Your task to perform on an android device: open app "Fetch Rewards" (install if not already installed) Image 0: 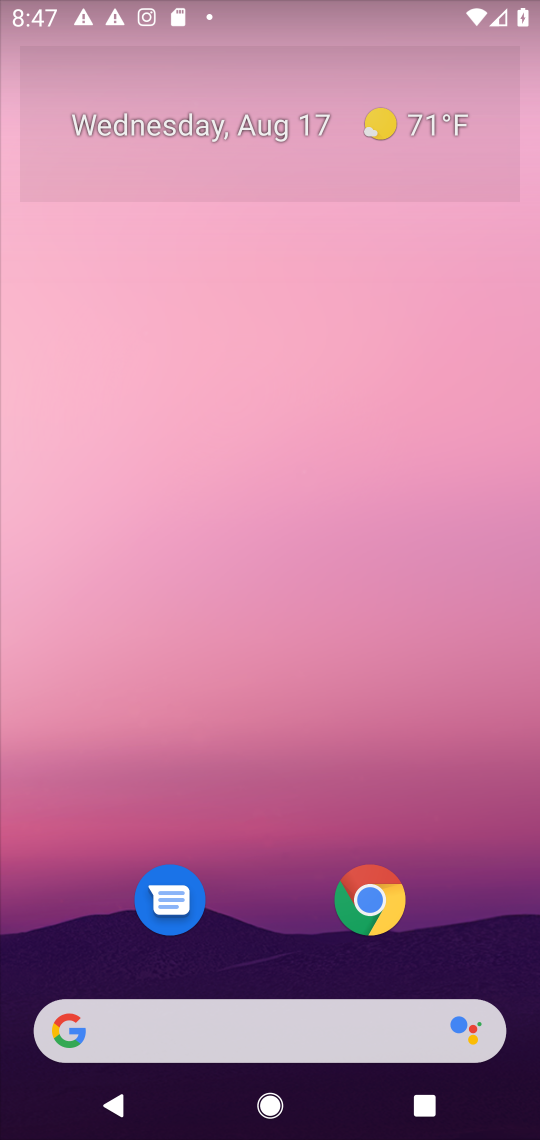
Step 0: drag from (259, 754) to (259, 46)
Your task to perform on an android device: open app "Fetch Rewards" (install if not already installed) Image 1: 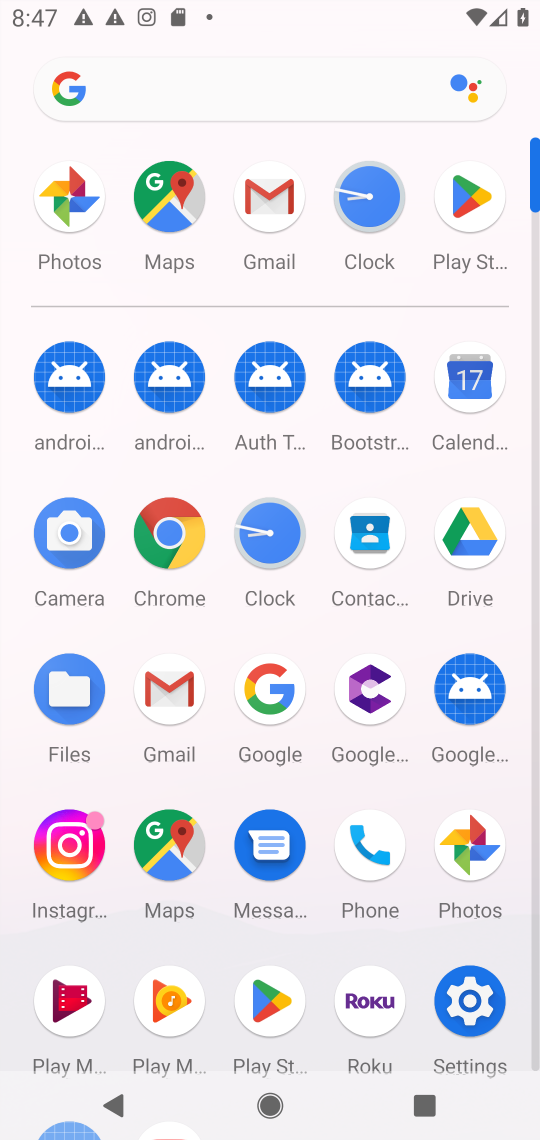
Step 1: click (473, 195)
Your task to perform on an android device: open app "Fetch Rewards" (install if not already installed) Image 2: 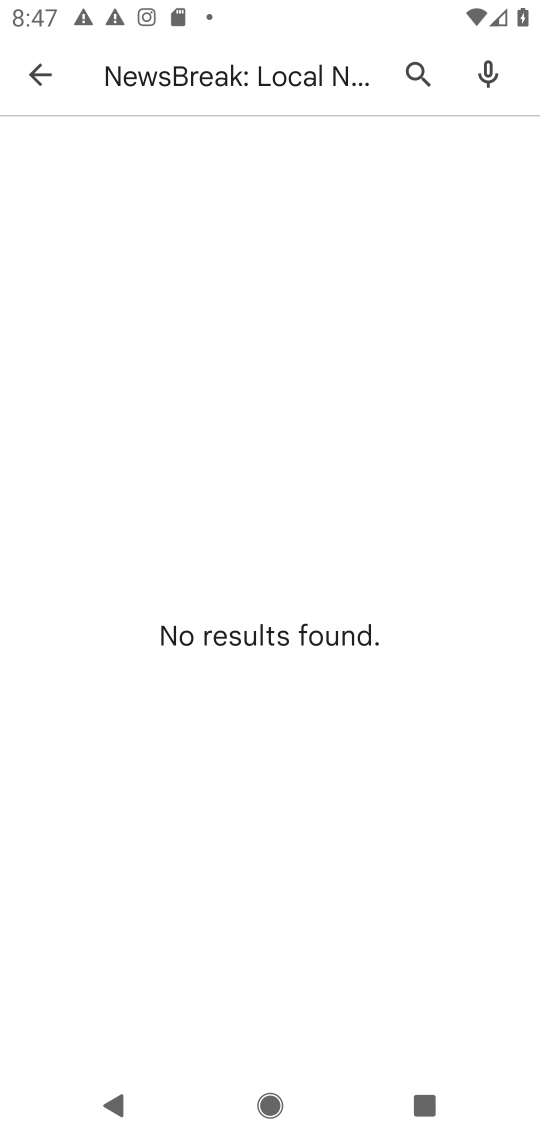
Step 2: click (39, 81)
Your task to perform on an android device: open app "Fetch Rewards" (install if not already installed) Image 3: 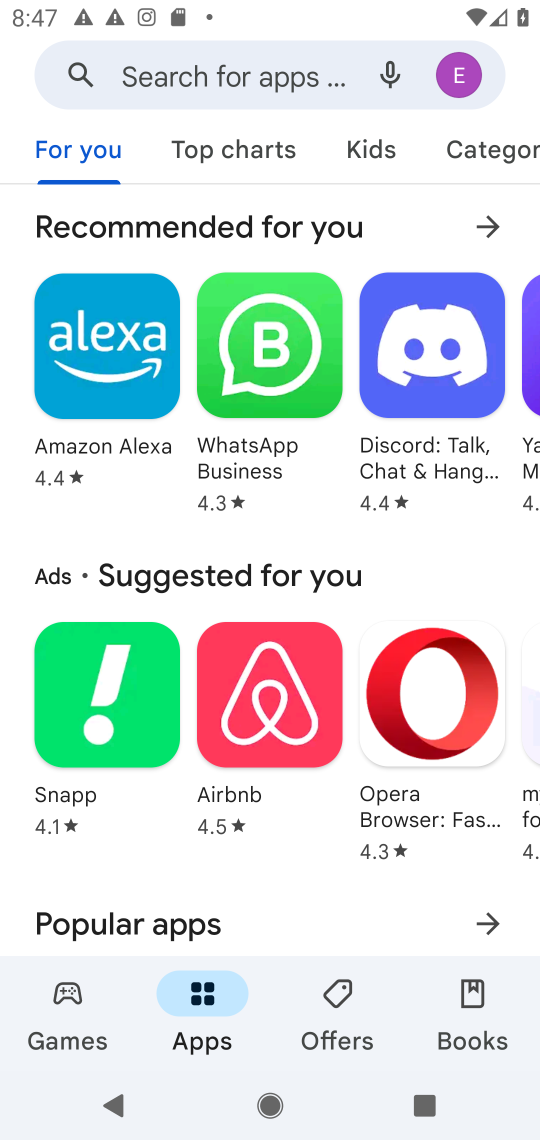
Step 3: click (208, 76)
Your task to perform on an android device: open app "Fetch Rewards" (install if not already installed) Image 4: 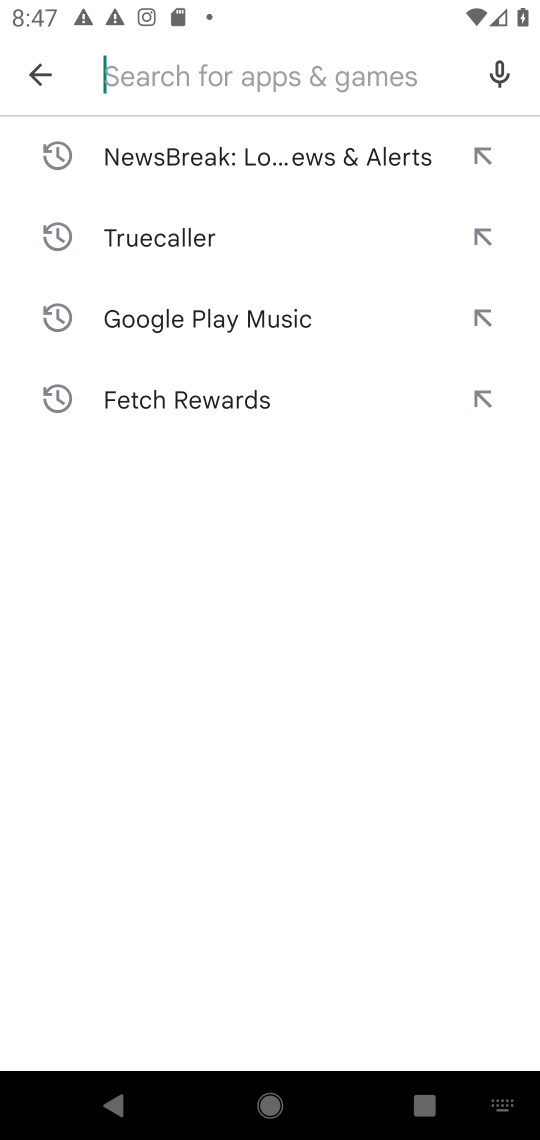
Step 4: type "Fetch Rewards"
Your task to perform on an android device: open app "Fetch Rewards" (install if not already installed) Image 5: 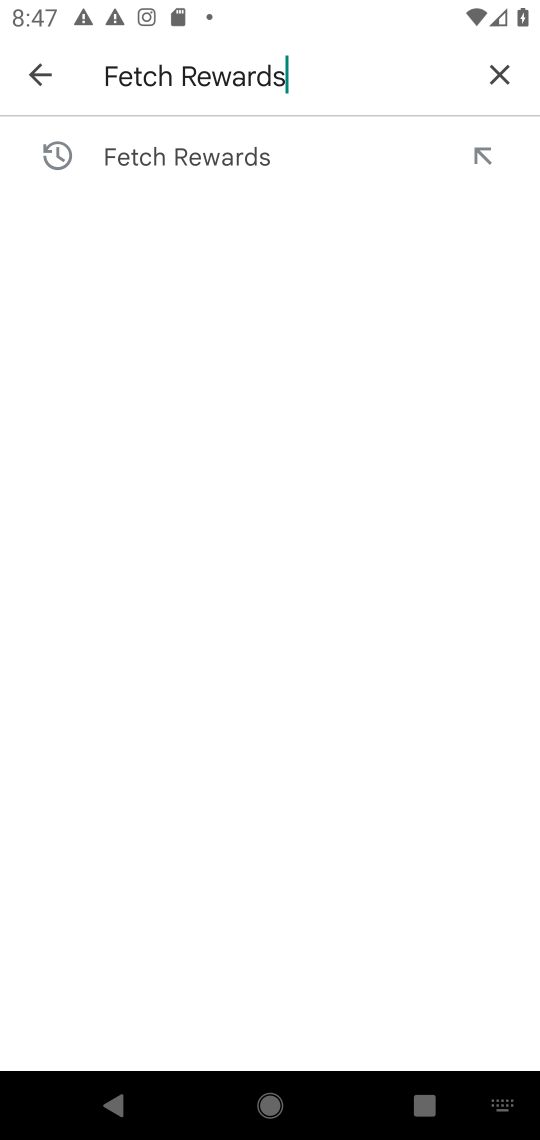
Step 5: click (199, 158)
Your task to perform on an android device: open app "Fetch Rewards" (install if not already installed) Image 6: 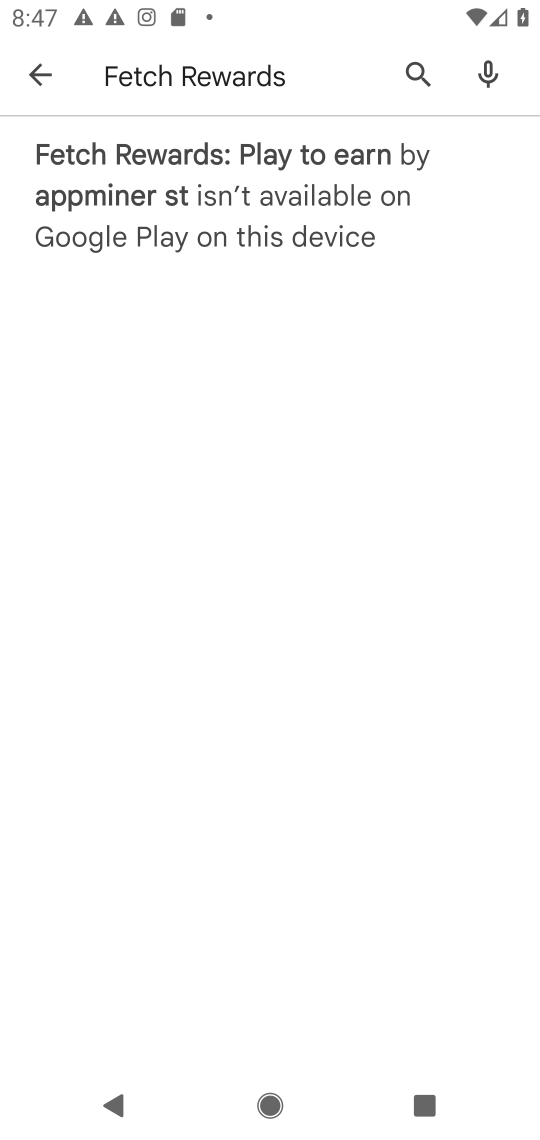
Step 6: click (199, 158)
Your task to perform on an android device: open app "Fetch Rewards" (install if not already installed) Image 7: 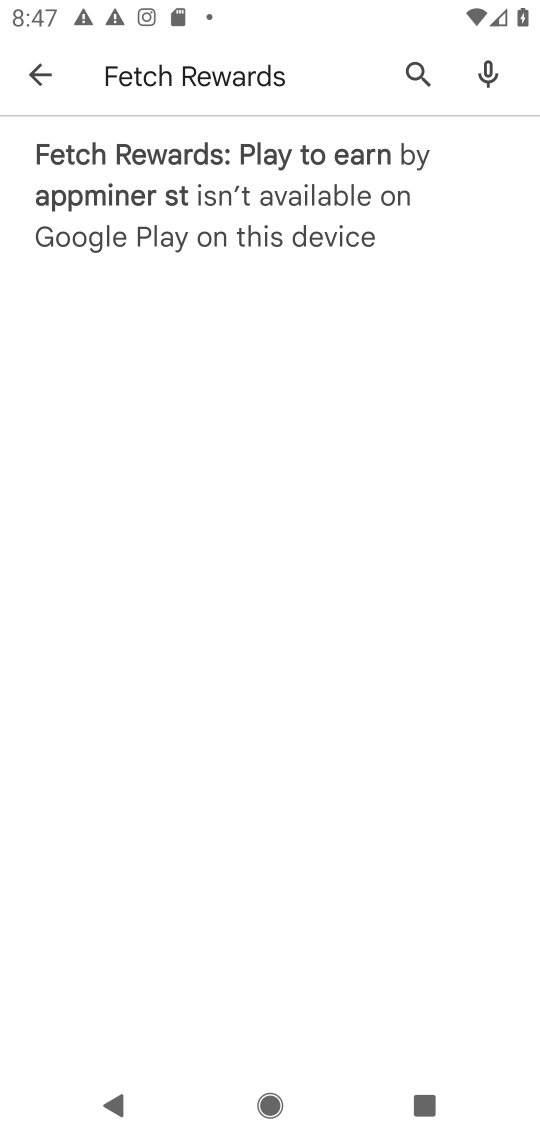
Step 7: click (129, 181)
Your task to perform on an android device: open app "Fetch Rewards" (install if not already installed) Image 8: 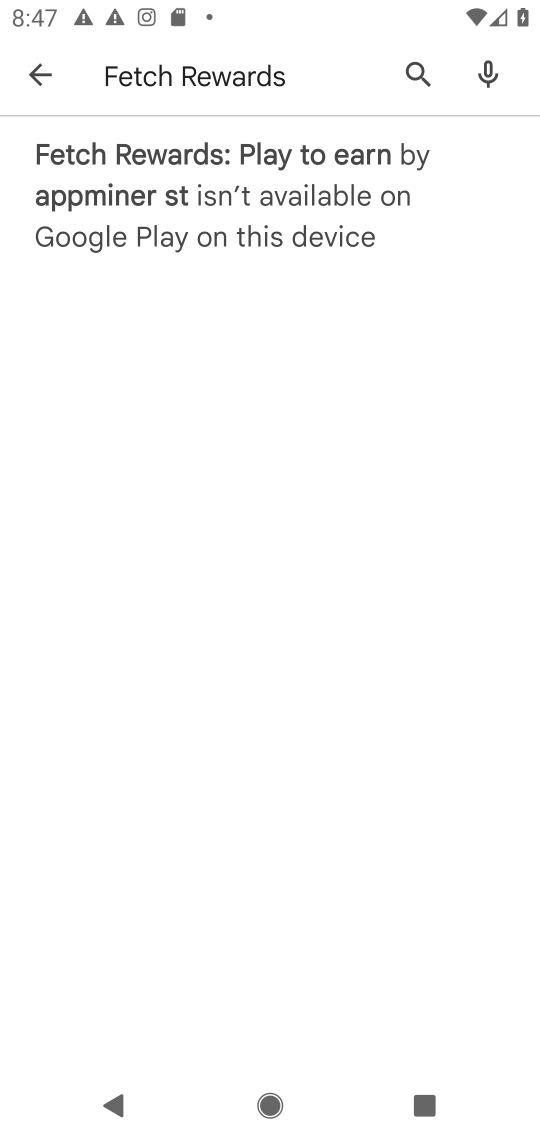
Step 8: task complete